Your task to perform on an android device: toggle notification dots Image 0: 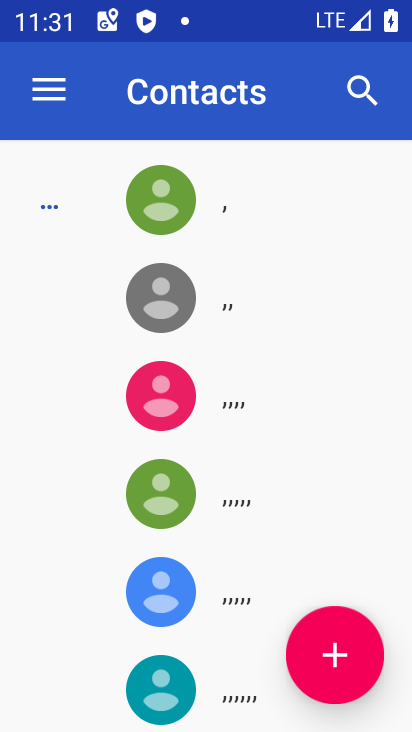
Step 0: press home button
Your task to perform on an android device: toggle notification dots Image 1: 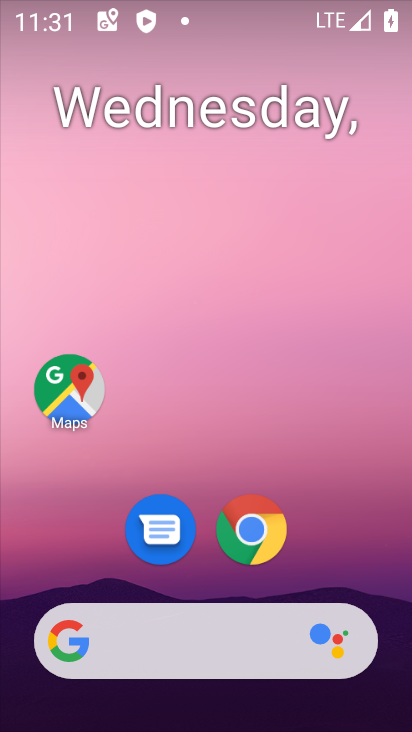
Step 1: drag from (205, 584) to (257, 27)
Your task to perform on an android device: toggle notification dots Image 2: 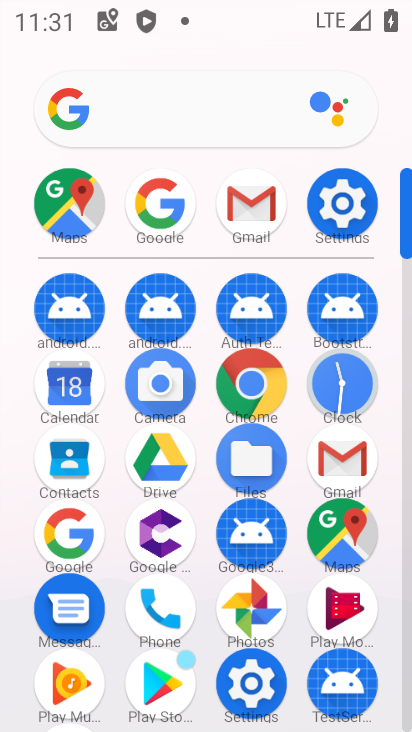
Step 2: click (338, 206)
Your task to perform on an android device: toggle notification dots Image 3: 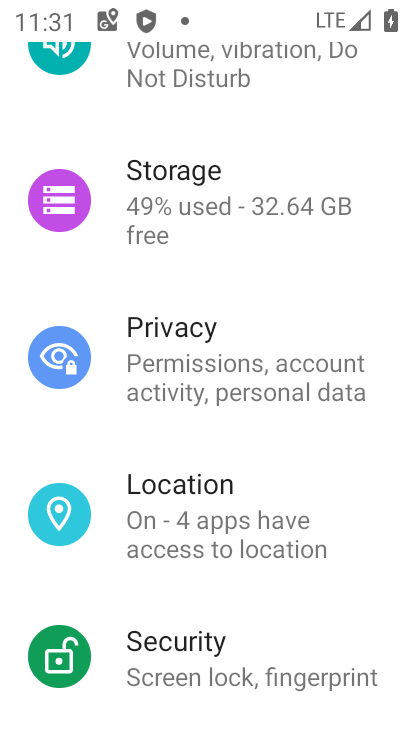
Step 3: drag from (287, 588) to (223, 77)
Your task to perform on an android device: toggle notification dots Image 4: 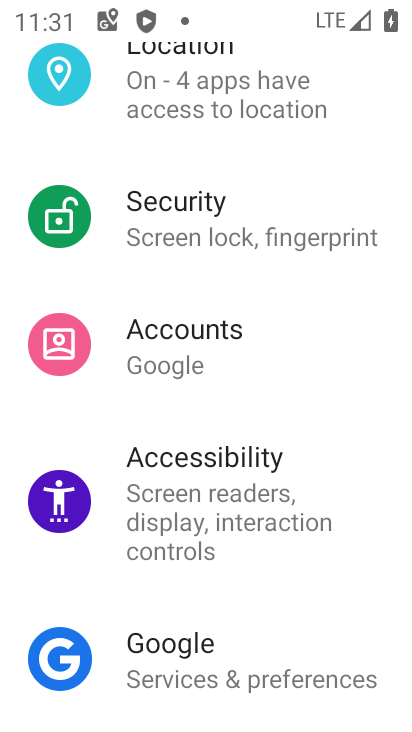
Step 4: drag from (258, 567) to (202, 727)
Your task to perform on an android device: toggle notification dots Image 5: 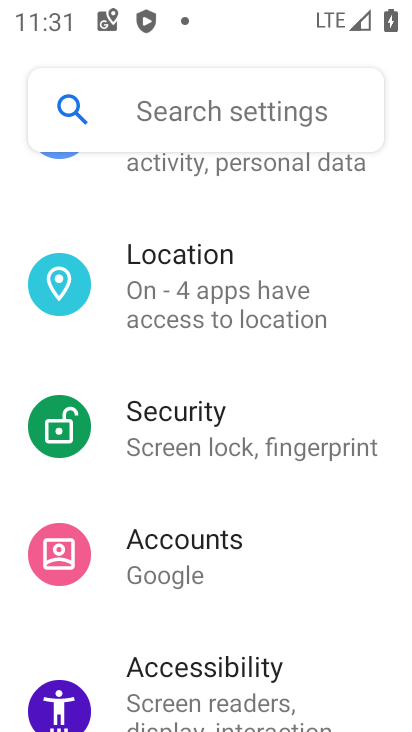
Step 5: drag from (278, 248) to (295, 503)
Your task to perform on an android device: toggle notification dots Image 6: 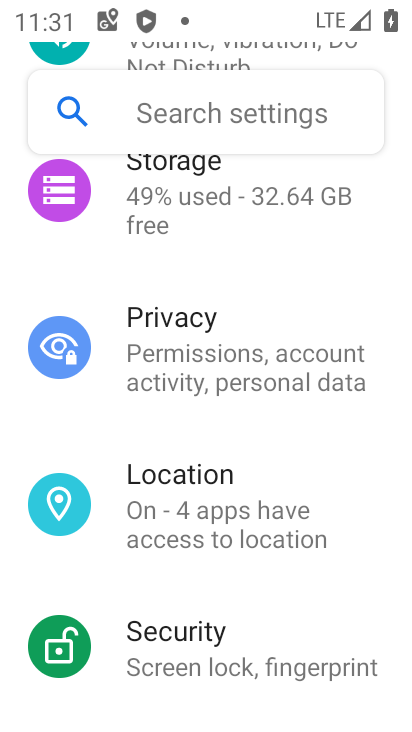
Step 6: drag from (270, 279) to (266, 652)
Your task to perform on an android device: toggle notification dots Image 7: 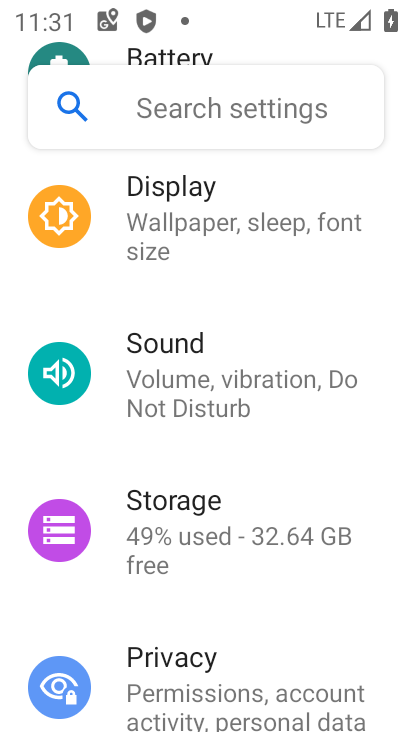
Step 7: drag from (270, 293) to (295, 598)
Your task to perform on an android device: toggle notification dots Image 8: 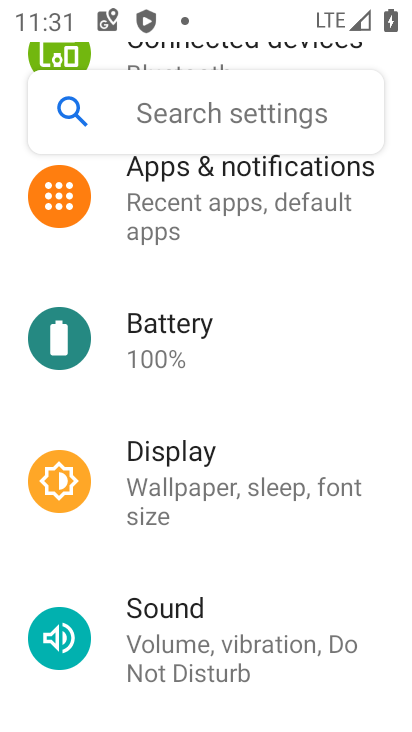
Step 8: click (272, 204)
Your task to perform on an android device: toggle notification dots Image 9: 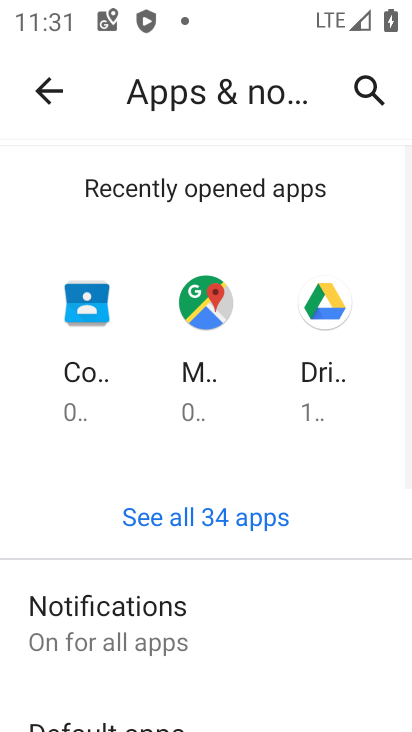
Step 9: click (182, 590)
Your task to perform on an android device: toggle notification dots Image 10: 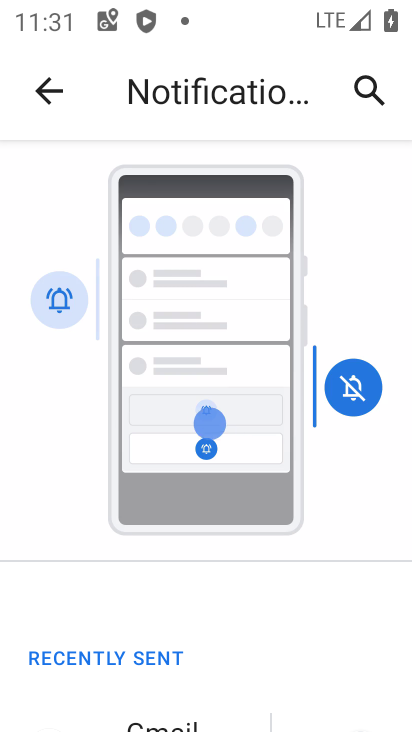
Step 10: drag from (199, 642) to (150, 137)
Your task to perform on an android device: toggle notification dots Image 11: 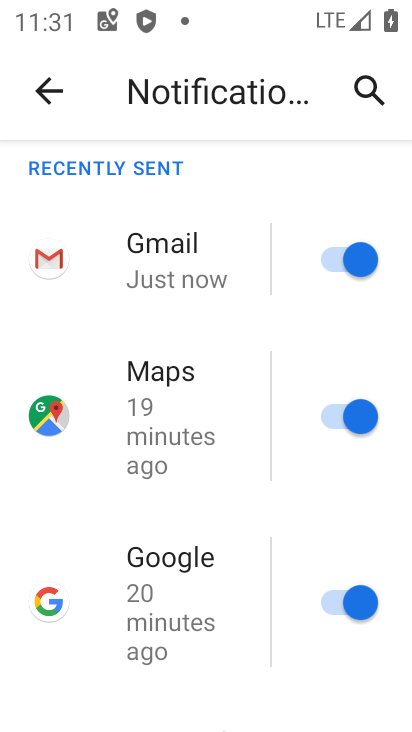
Step 11: drag from (267, 663) to (259, 179)
Your task to perform on an android device: toggle notification dots Image 12: 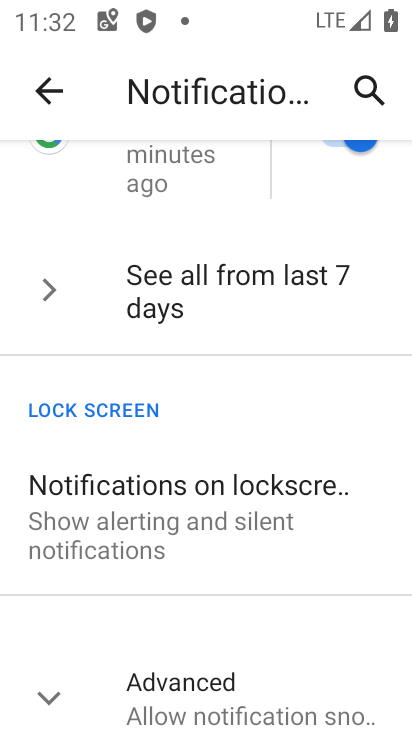
Step 12: click (268, 668)
Your task to perform on an android device: toggle notification dots Image 13: 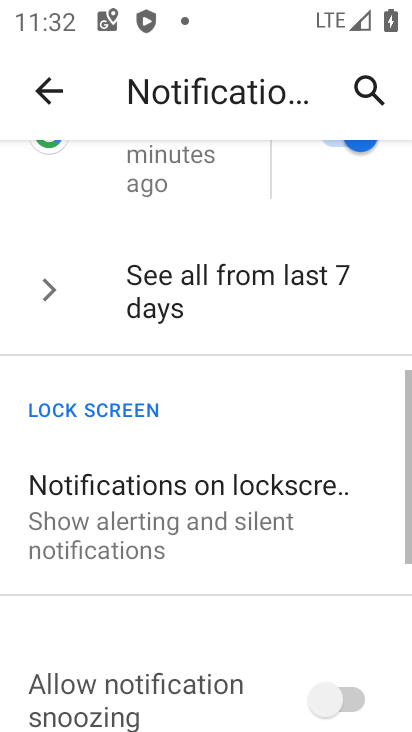
Step 13: drag from (268, 668) to (241, 339)
Your task to perform on an android device: toggle notification dots Image 14: 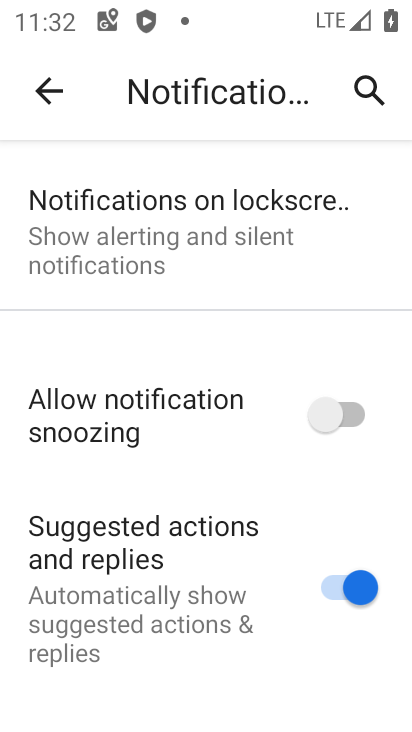
Step 14: drag from (327, 644) to (276, 266)
Your task to perform on an android device: toggle notification dots Image 15: 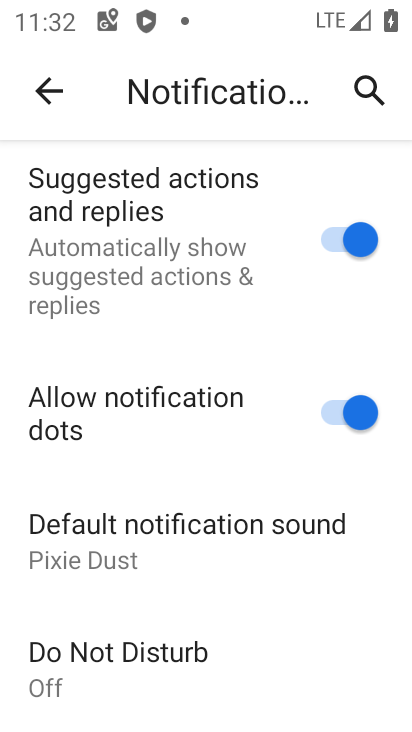
Step 15: click (347, 399)
Your task to perform on an android device: toggle notification dots Image 16: 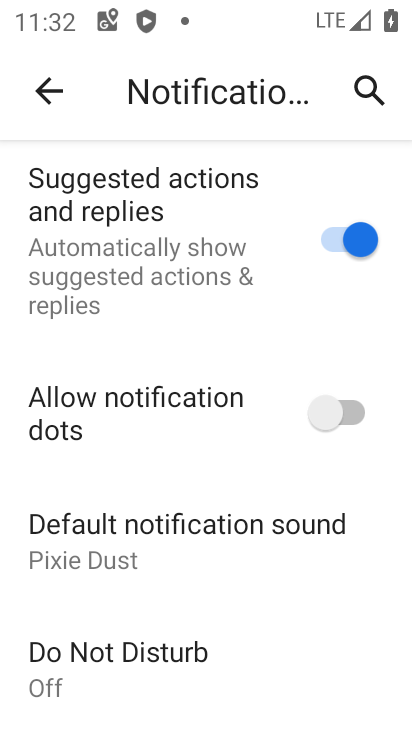
Step 16: task complete